Your task to perform on an android device: turn notification dots off Image 0: 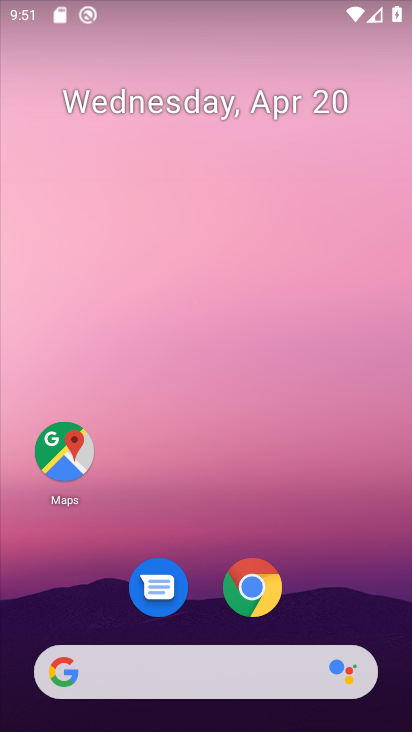
Step 0: drag from (271, 594) to (219, 0)
Your task to perform on an android device: turn notification dots off Image 1: 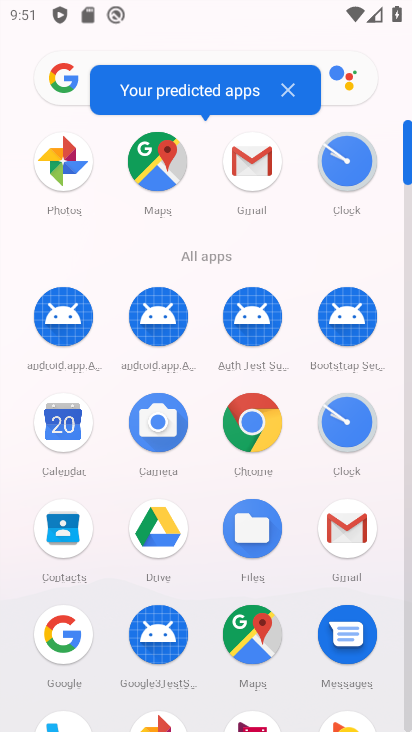
Step 1: drag from (312, 562) to (282, 203)
Your task to perform on an android device: turn notification dots off Image 2: 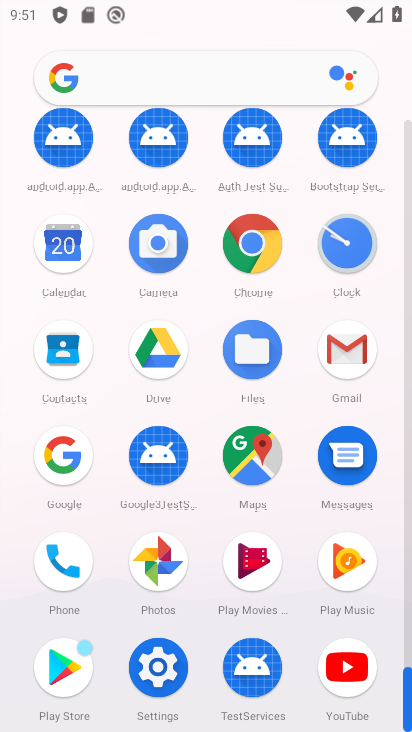
Step 2: click (155, 666)
Your task to perform on an android device: turn notification dots off Image 3: 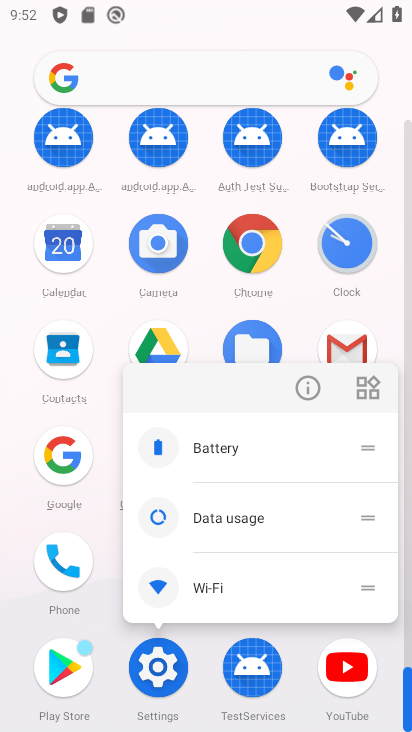
Step 3: click (134, 679)
Your task to perform on an android device: turn notification dots off Image 4: 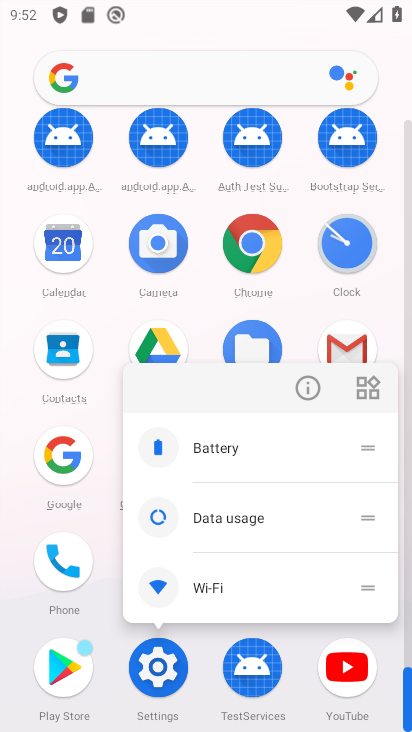
Step 4: click (157, 667)
Your task to perform on an android device: turn notification dots off Image 5: 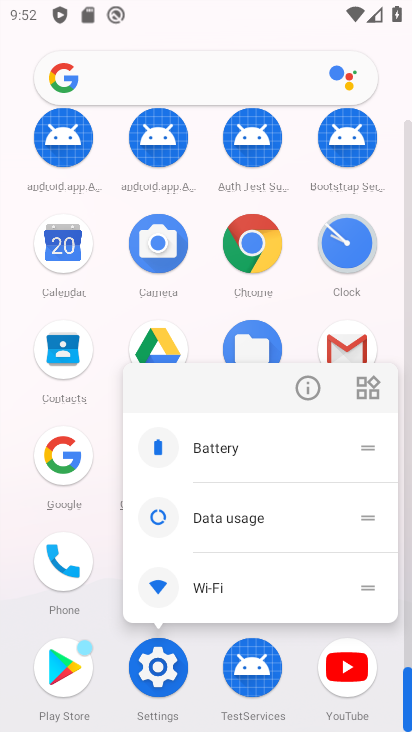
Step 5: click (159, 662)
Your task to perform on an android device: turn notification dots off Image 6: 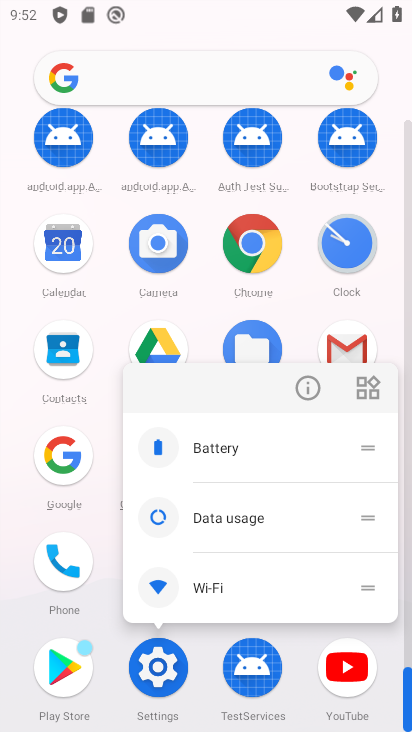
Step 6: click (130, 661)
Your task to perform on an android device: turn notification dots off Image 7: 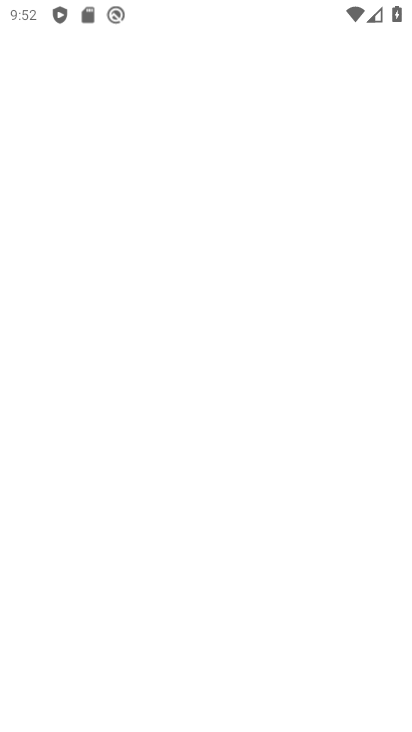
Step 7: click (136, 660)
Your task to perform on an android device: turn notification dots off Image 8: 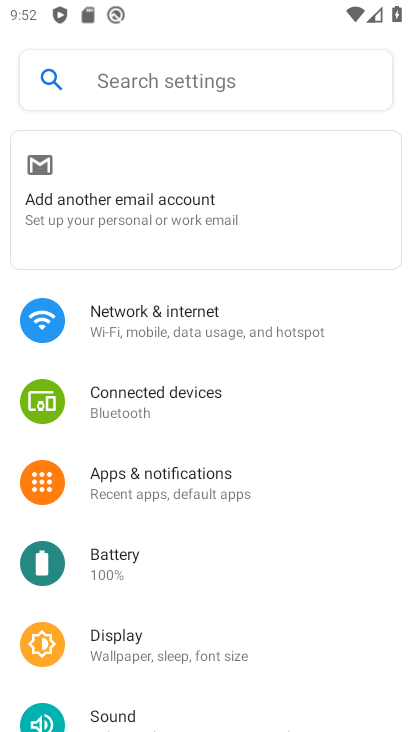
Step 8: click (185, 476)
Your task to perform on an android device: turn notification dots off Image 9: 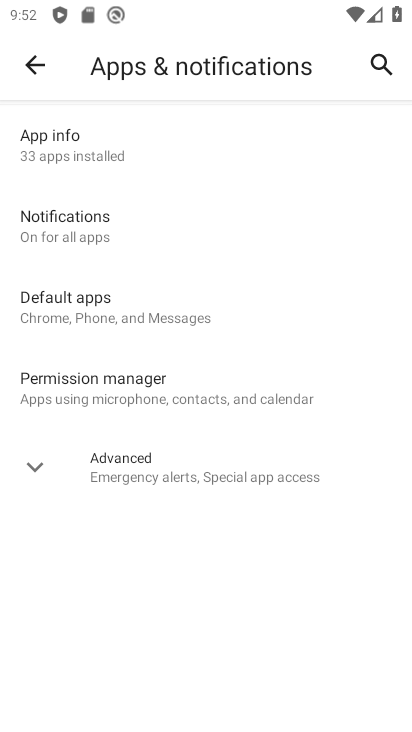
Step 9: click (72, 226)
Your task to perform on an android device: turn notification dots off Image 10: 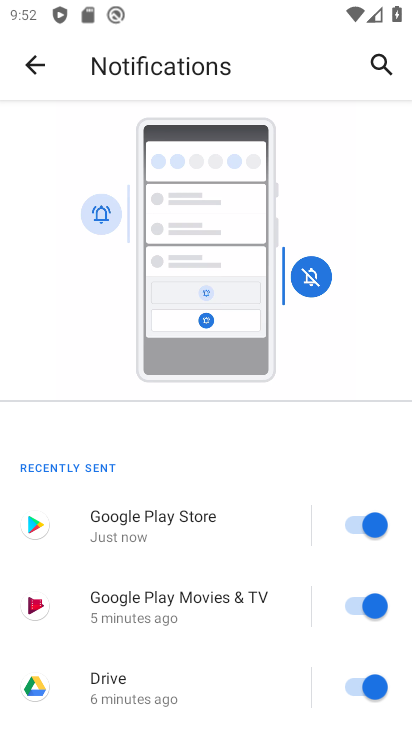
Step 10: drag from (244, 626) to (179, 197)
Your task to perform on an android device: turn notification dots off Image 11: 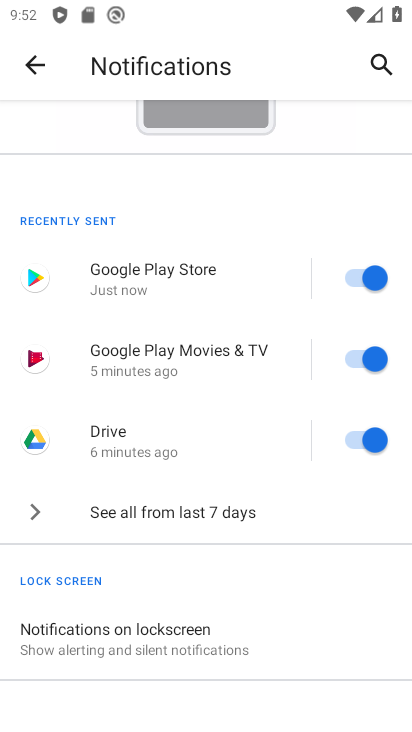
Step 11: click (216, 654)
Your task to perform on an android device: turn notification dots off Image 12: 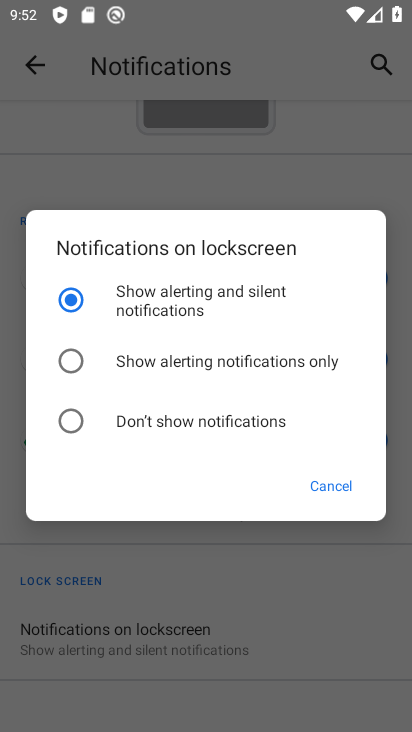
Step 12: click (343, 488)
Your task to perform on an android device: turn notification dots off Image 13: 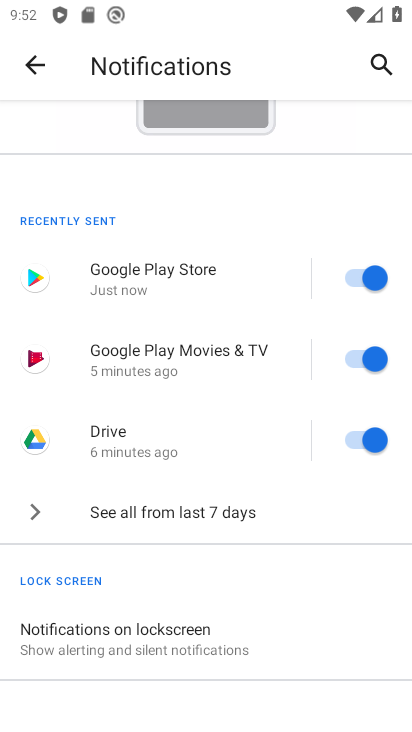
Step 13: drag from (287, 605) to (167, 147)
Your task to perform on an android device: turn notification dots off Image 14: 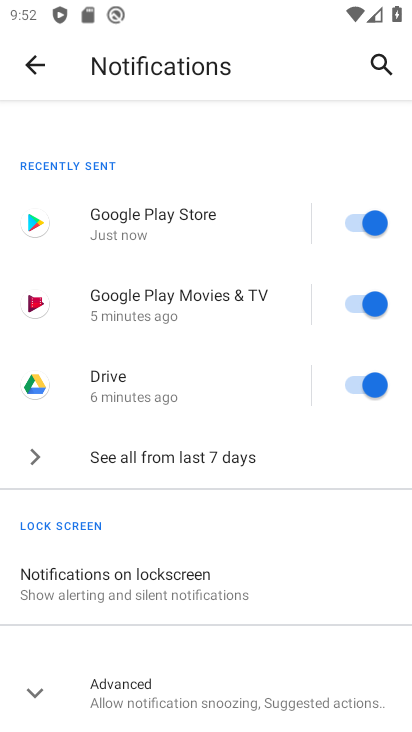
Step 14: click (113, 697)
Your task to perform on an android device: turn notification dots off Image 15: 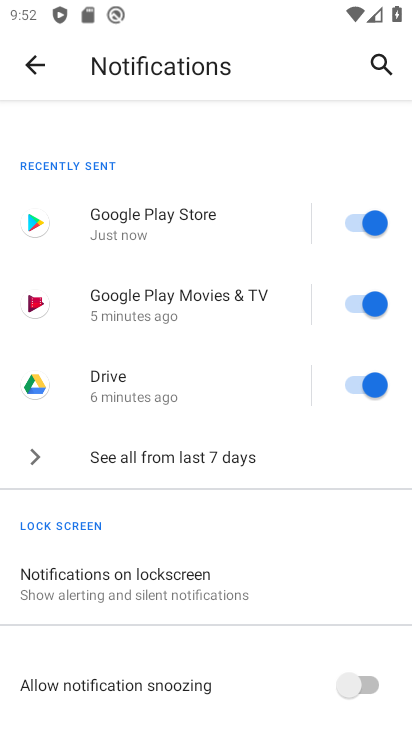
Step 15: drag from (266, 572) to (153, 101)
Your task to perform on an android device: turn notification dots off Image 16: 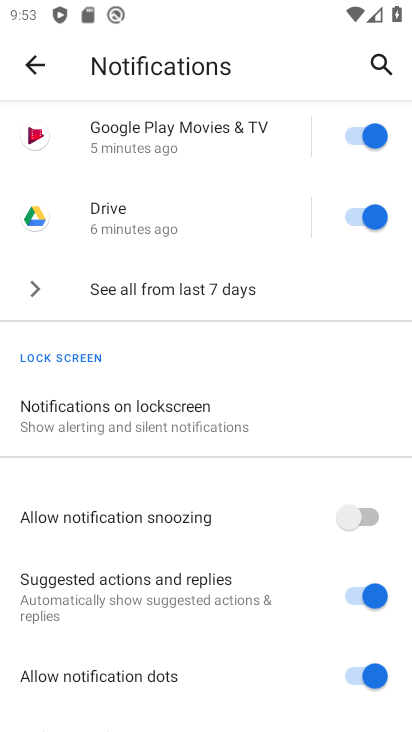
Step 16: click (360, 675)
Your task to perform on an android device: turn notification dots off Image 17: 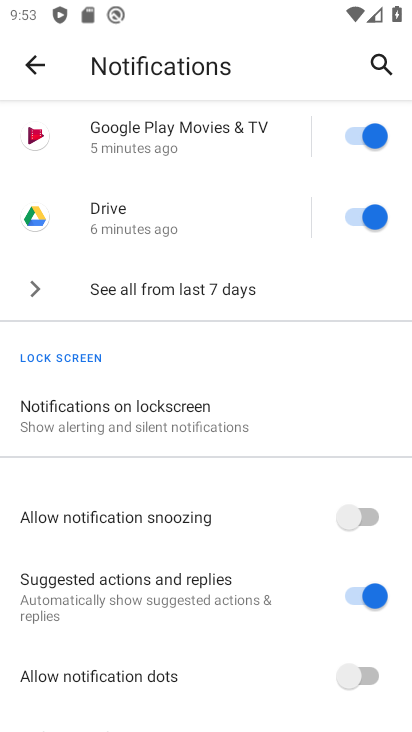
Step 17: task complete